Your task to perform on an android device: move a message to another label in the gmail app Image 0: 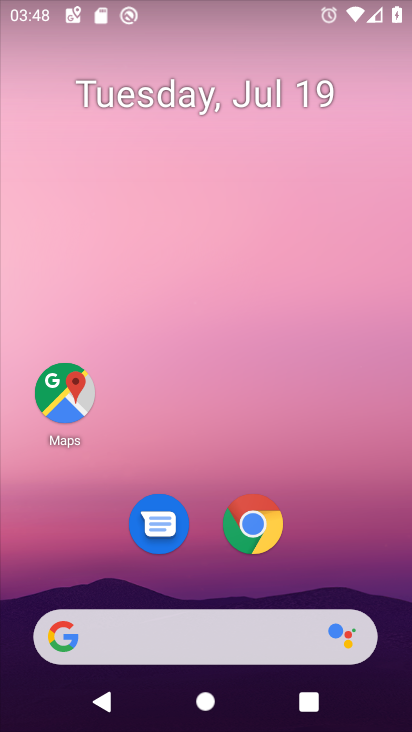
Step 0: drag from (329, 563) to (336, 46)
Your task to perform on an android device: move a message to another label in the gmail app Image 1: 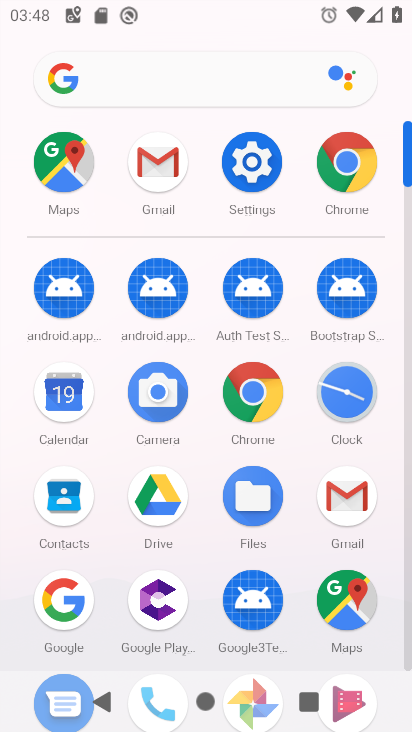
Step 1: click (159, 167)
Your task to perform on an android device: move a message to another label in the gmail app Image 2: 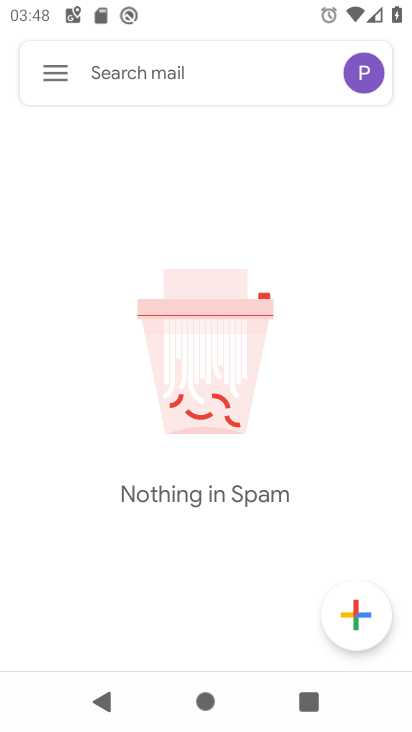
Step 2: click (60, 65)
Your task to perform on an android device: move a message to another label in the gmail app Image 3: 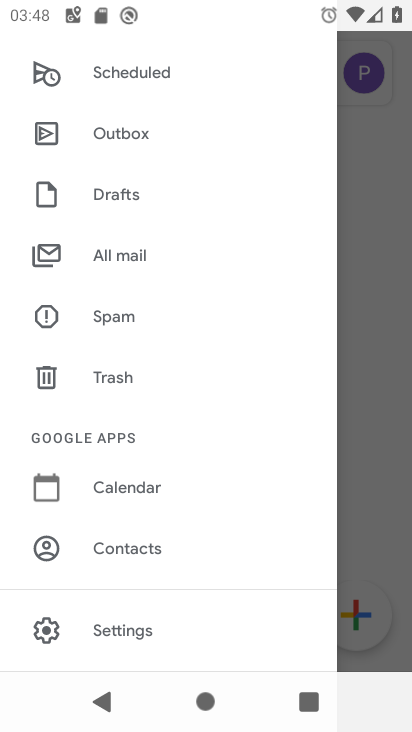
Step 3: click (94, 249)
Your task to perform on an android device: move a message to another label in the gmail app Image 4: 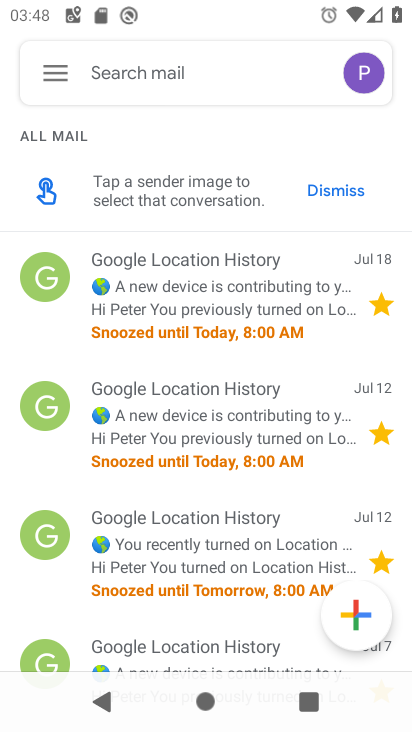
Step 4: drag from (229, 451) to (271, 198)
Your task to perform on an android device: move a message to another label in the gmail app Image 5: 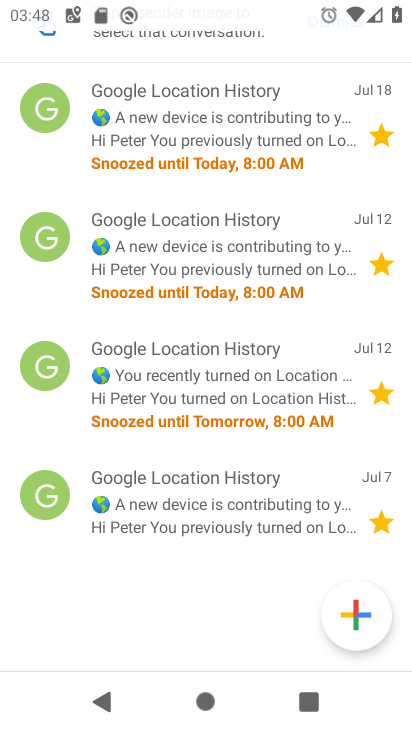
Step 5: click (255, 498)
Your task to perform on an android device: move a message to another label in the gmail app Image 6: 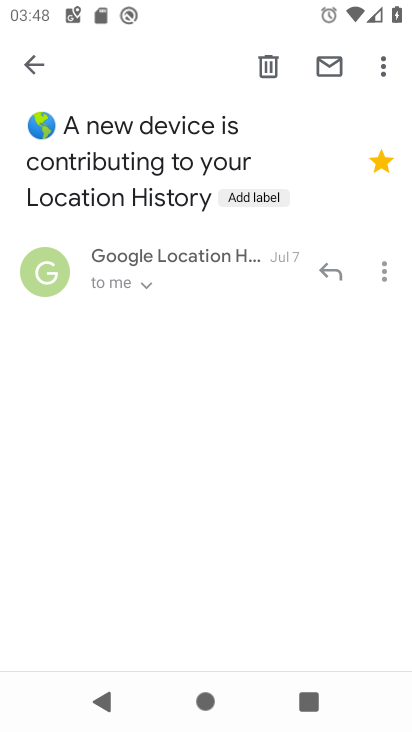
Step 6: click (382, 69)
Your task to perform on an android device: move a message to another label in the gmail app Image 7: 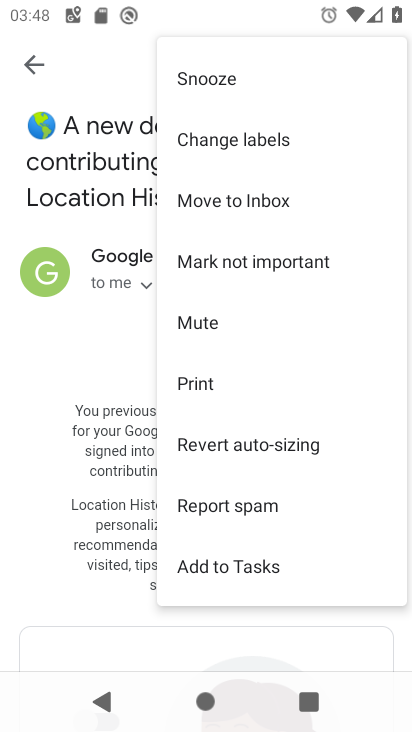
Step 7: click (274, 199)
Your task to perform on an android device: move a message to another label in the gmail app Image 8: 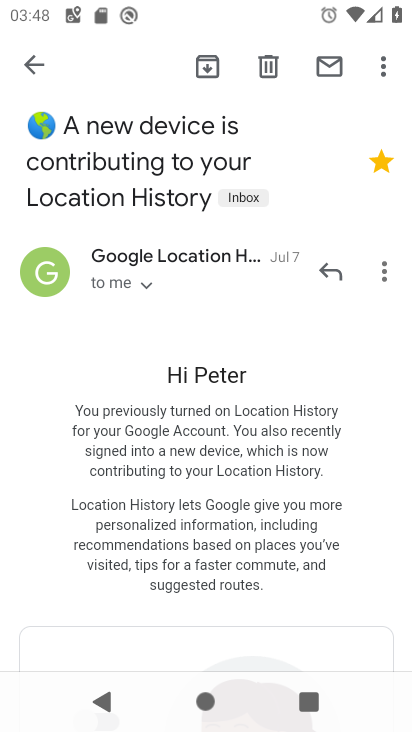
Step 8: task complete